Your task to perform on an android device: Open Yahoo.com Image 0: 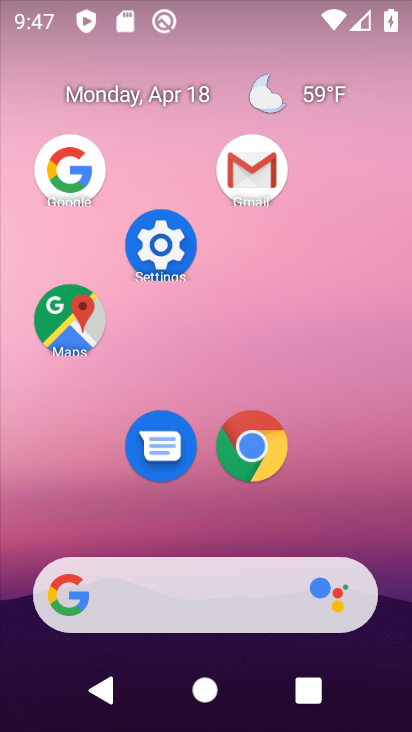
Step 0: click (238, 448)
Your task to perform on an android device: Open Yahoo.com Image 1: 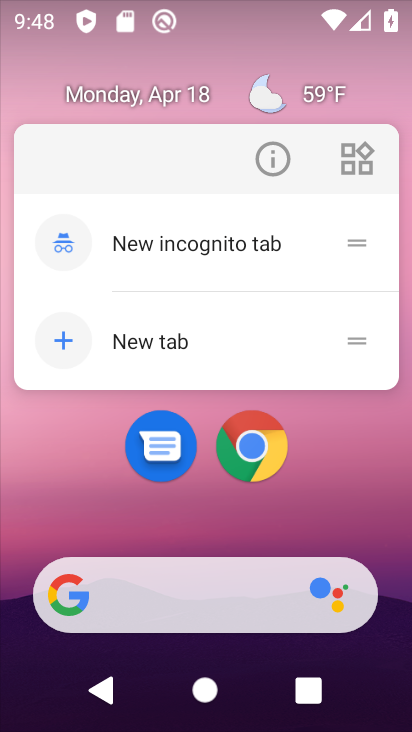
Step 1: click (238, 448)
Your task to perform on an android device: Open Yahoo.com Image 2: 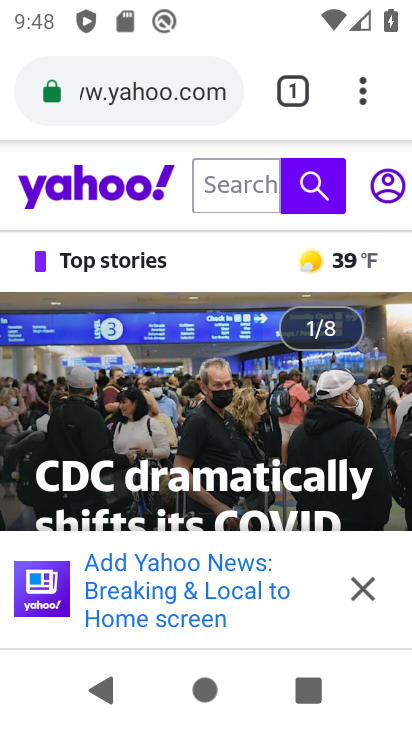
Step 2: task complete